Your task to perform on an android device: Go to location settings Image 0: 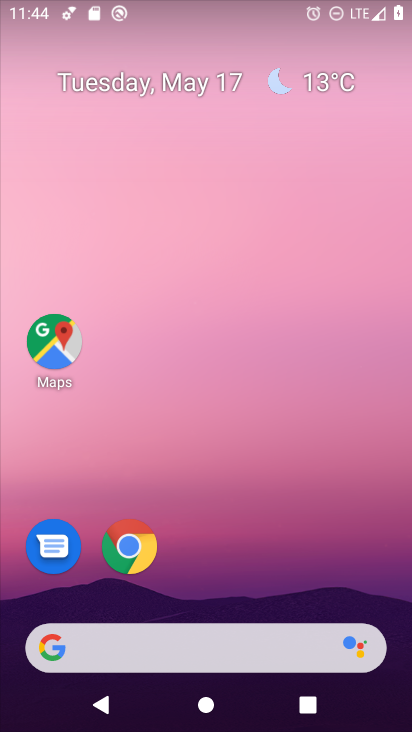
Step 0: drag from (260, 555) to (240, 3)
Your task to perform on an android device: Go to location settings Image 1: 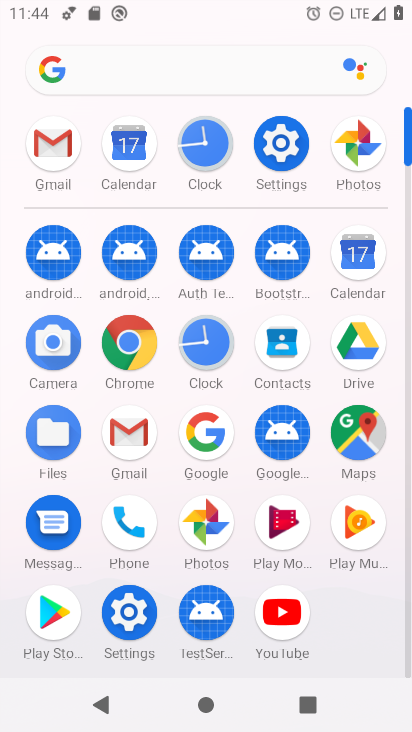
Step 1: click (279, 141)
Your task to perform on an android device: Go to location settings Image 2: 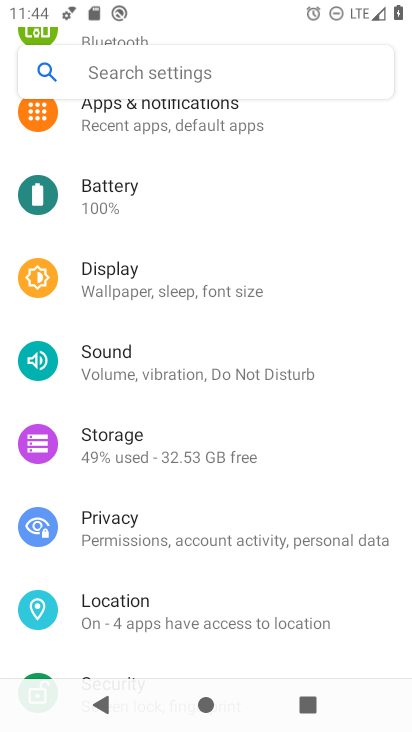
Step 2: click (131, 607)
Your task to perform on an android device: Go to location settings Image 3: 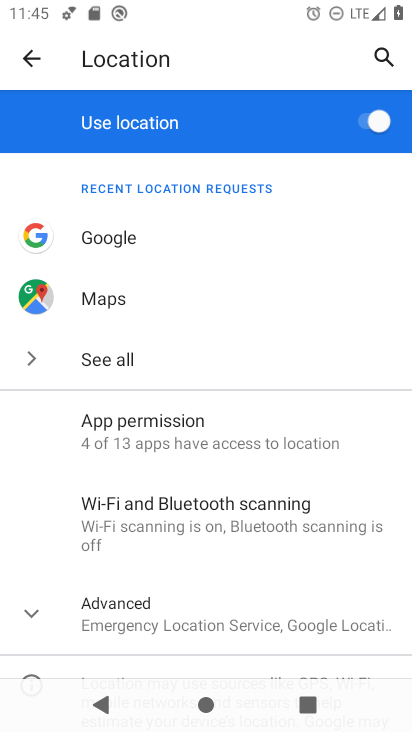
Step 3: task complete